Your task to perform on an android device: Show me productivity apps on the Play Store Image 0: 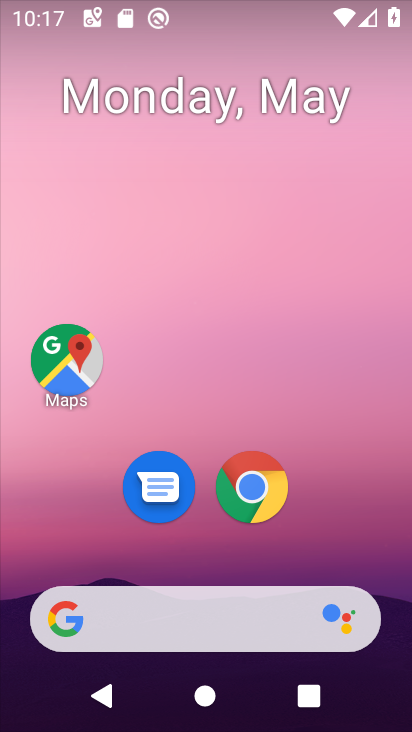
Step 0: drag from (338, 534) to (357, 36)
Your task to perform on an android device: Show me productivity apps on the Play Store Image 1: 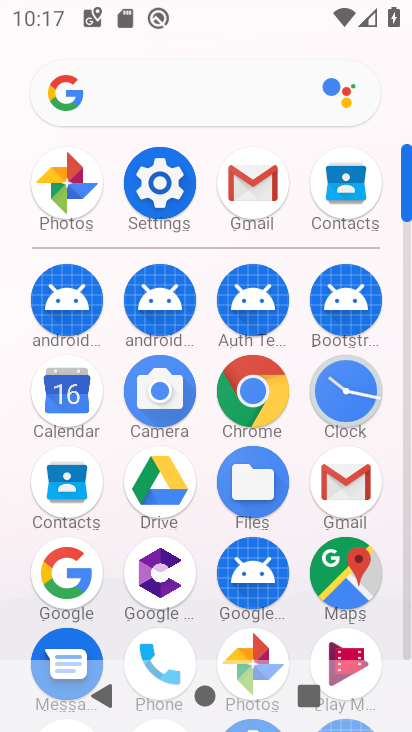
Step 1: drag from (210, 616) to (227, 299)
Your task to perform on an android device: Show me productivity apps on the Play Store Image 2: 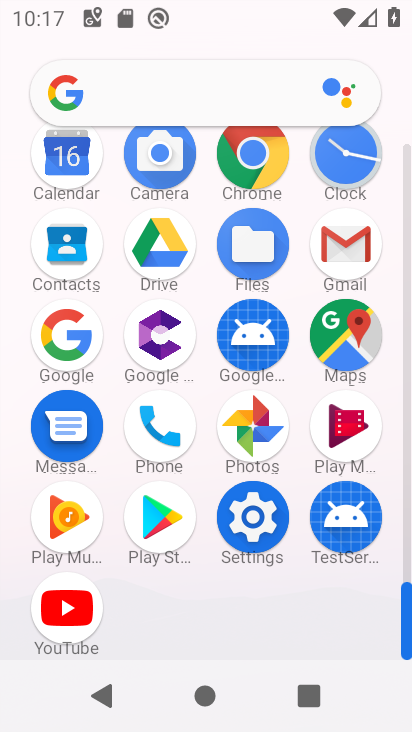
Step 2: click (148, 519)
Your task to perform on an android device: Show me productivity apps on the Play Store Image 3: 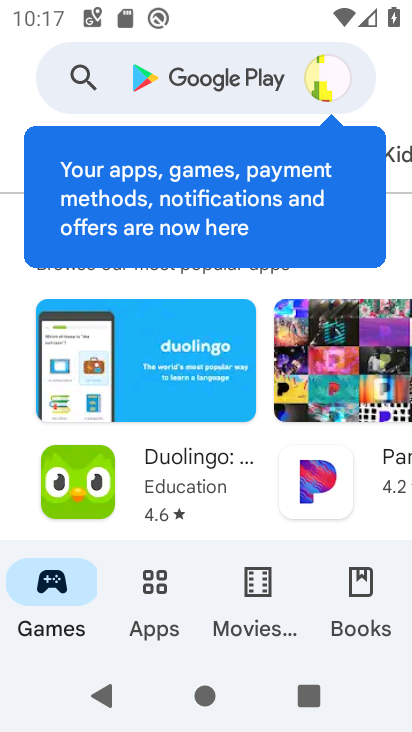
Step 3: click (155, 611)
Your task to perform on an android device: Show me productivity apps on the Play Store Image 4: 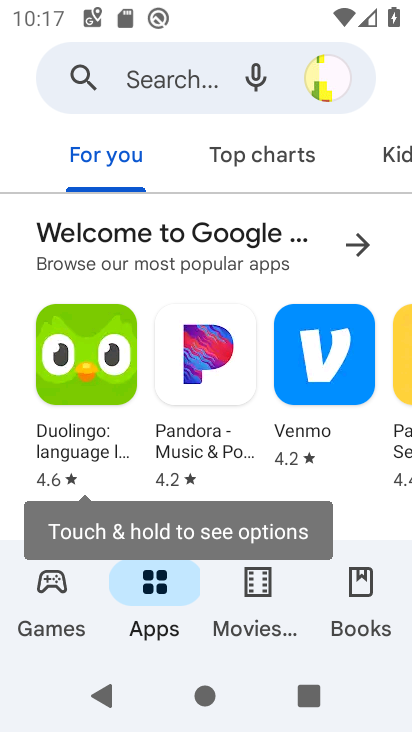
Step 4: drag from (396, 153) to (212, 97)
Your task to perform on an android device: Show me productivity apps on the Play Store Image 5: 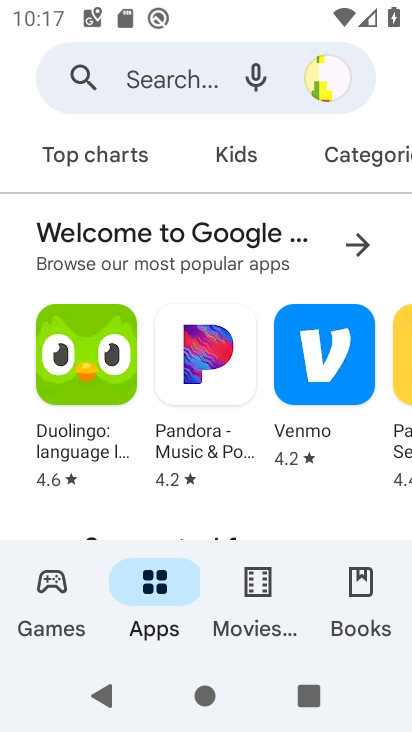
Step 5: click (392, 151)
Your task to perform on an android device: Show me productivity apps on the Play Store Image 6: 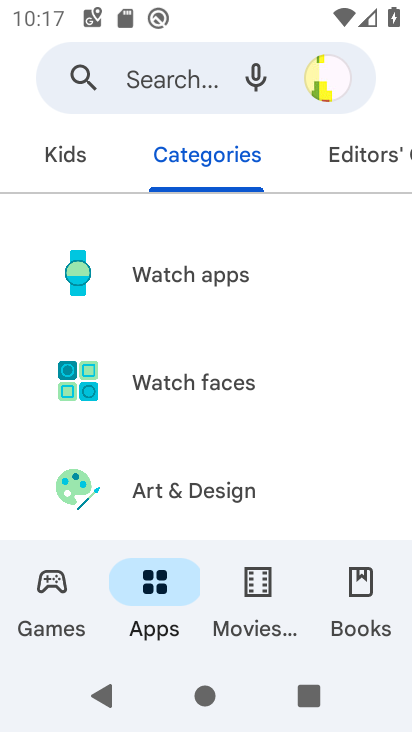
Step 6: drag from (227, 470) to (309, 227)
Your task to perform on an android device: Show me productivity apps on the Play Store Image 7: 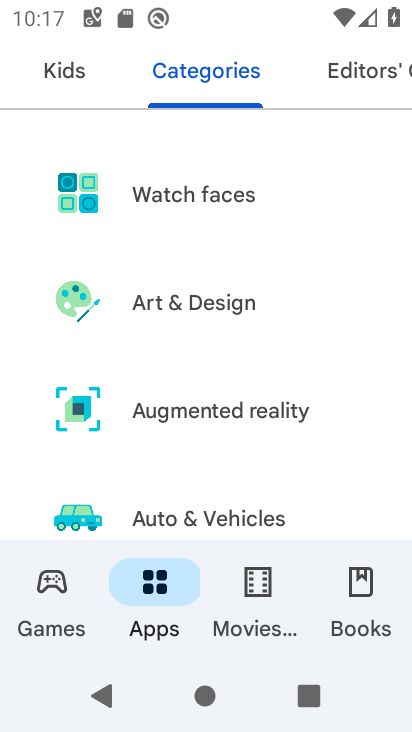
Step 7: drag from (293, 469) to (363, 234)
Your task to perform on an android device: Show me productivity apps on the Play Store Image 8: 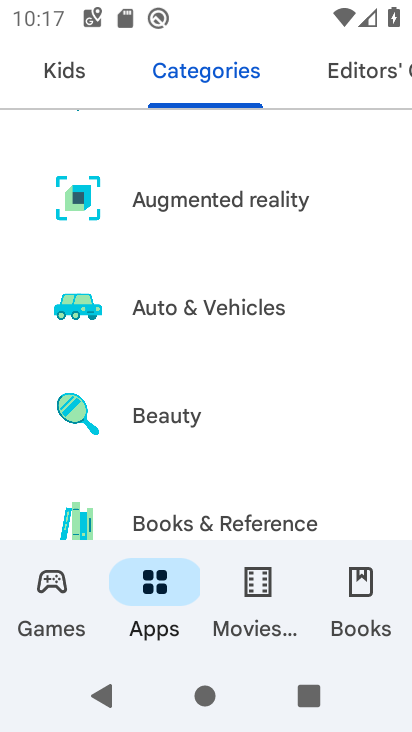
Step 8: drag from (337, 486) to (374, 295)
Your task to perform on an android device: Show me productivity apps on the Play Store Image 9: 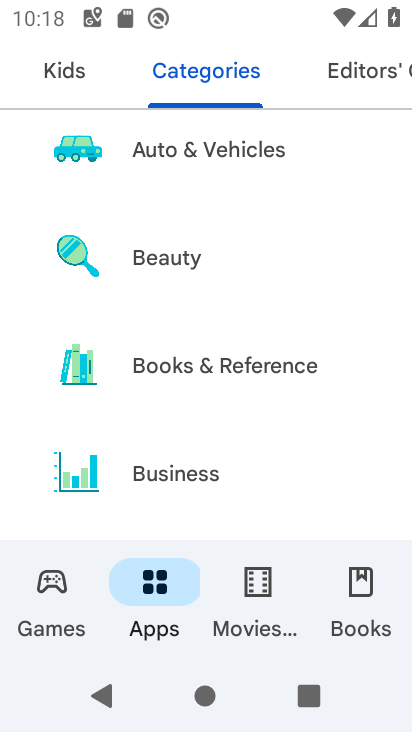
Step 9: drag from (330, 456) to (333, 232)
Your task to perform on an android device: Show me productivity apps on the Play Store Image 10: 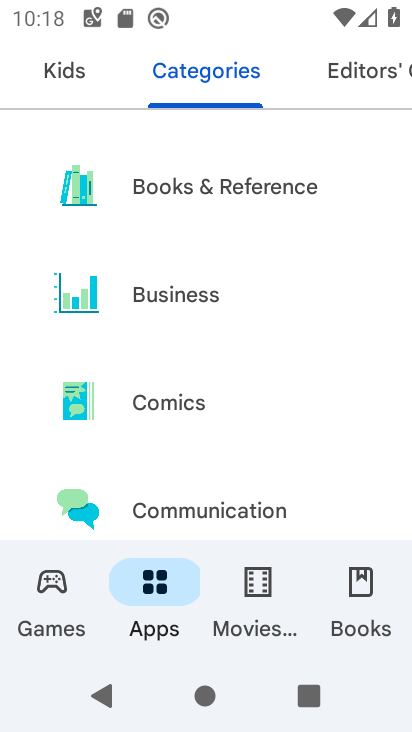
Step 10: drag from (312, 517) to (337, 303)
Your task to perform on an android device: Show me productivity apps on the Play Store Image 11: 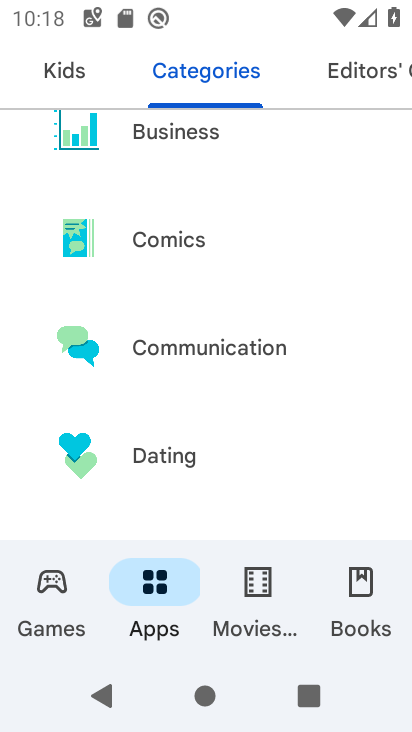
Step 11: drag from (319, 514) to (350, 330)
Your task to perform on an android device: Show me productivity apps on the Play Store Image 12: 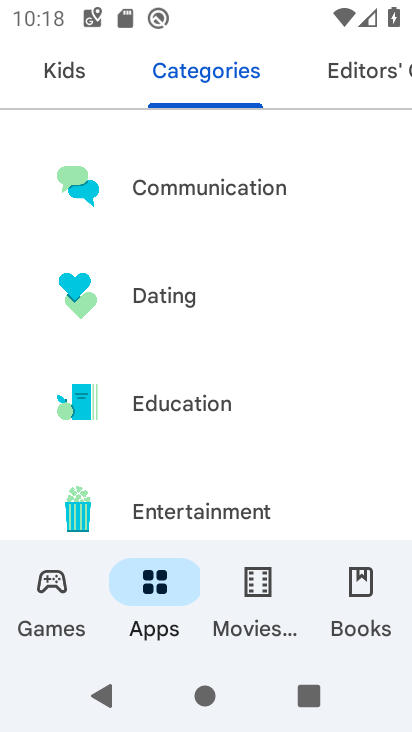
Step 12: drag from (322, 501) to (334, 256)
Your task to perform on an android device: Show me productivity apps on the Play Store Image 13: 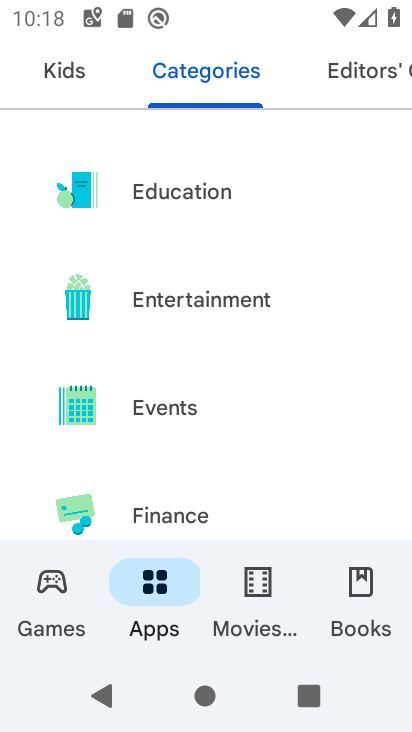
Step 13: drag from (328, 459) to (365, 315)
Your task to perform on an android device: Show me productivity apps on the Play Store Image 14: 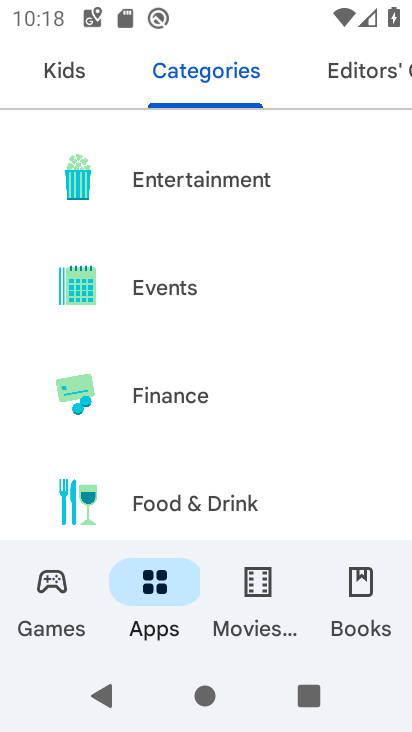
Step 14: drag from (345, 469) to (394, 227)
Your task to perform on an android device: Show me productivity apps on the Play Store Image 15: 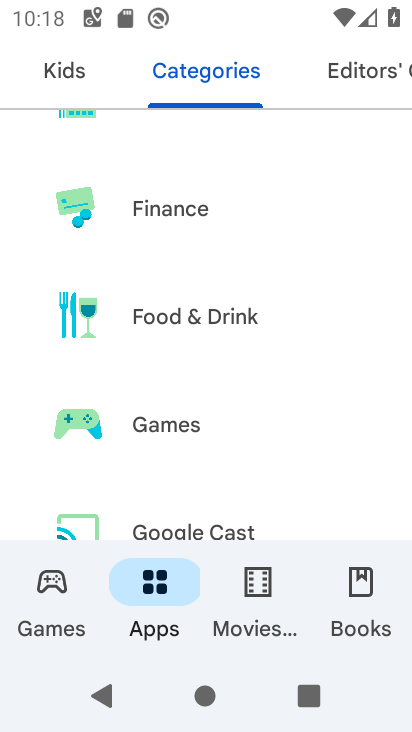
Step 15: drag from (303, 507) to (328, 239)
Your task to perform on an android device: Show me productivity apps on the Play Store Image 16: 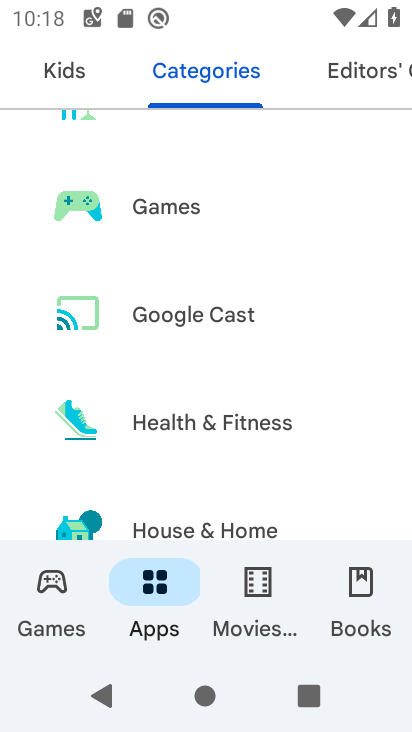
Step 16: drag from (267, 465) to (306, 249)
Your task to perform on an android device: Show me productivity apps on the Play Store Image 17: 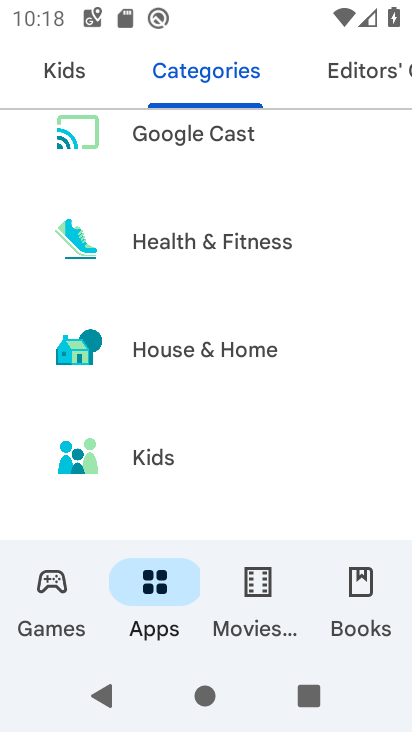
Step 17: drag from (260, 465) to (268, 235)
Your task to perform on an android device: Show me productivity apps on the Play Store Image 18: 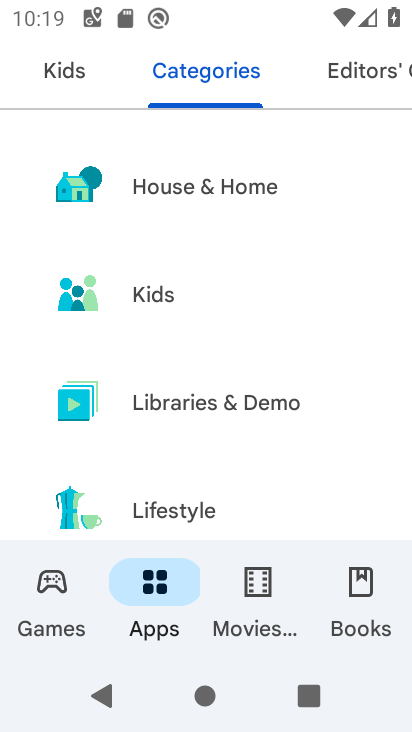
Step 18: drag from (269, 459) to (312, 227)
Your task to perform on an android device: Show me productivity apps on the Play Store Image 19: 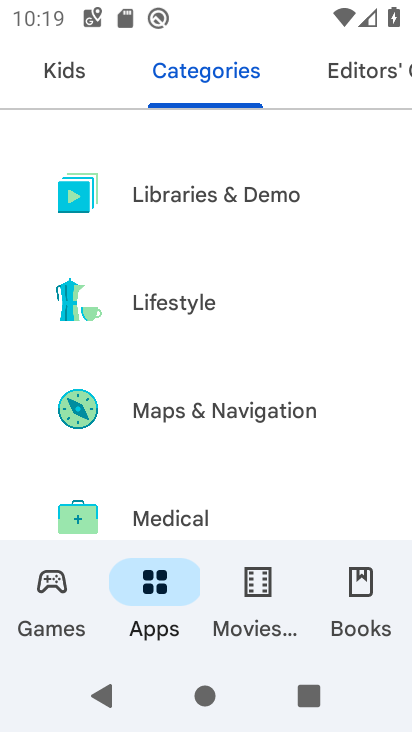
Step 19: drag from (265, 487) to (313, 225)
Your task to perform on an android device: Show me productivity apps on the Play Store Image 20: 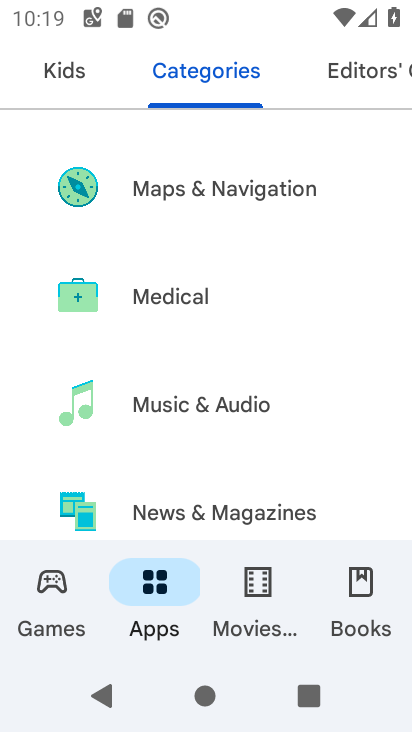
Step 20: drag from (277, 463) to (288, 192)
Your task to perform on an android device: Show me productivity apps on the Play Store Image 21: 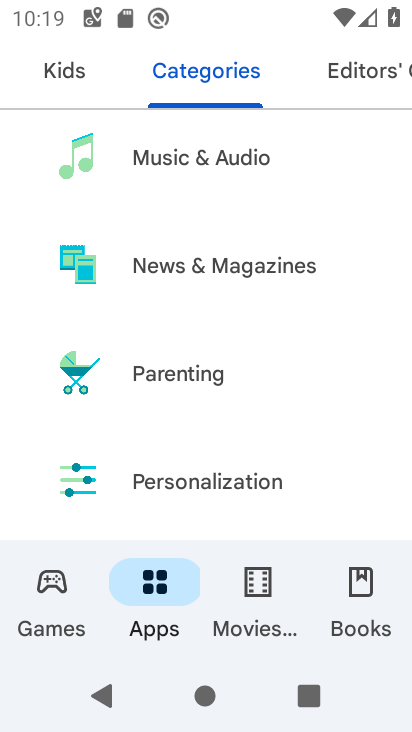
Step 21: drag from (244, 478) to (258, 121)
Your task to perform on an android device: Show me productivity apps on the Play Store Image 22: 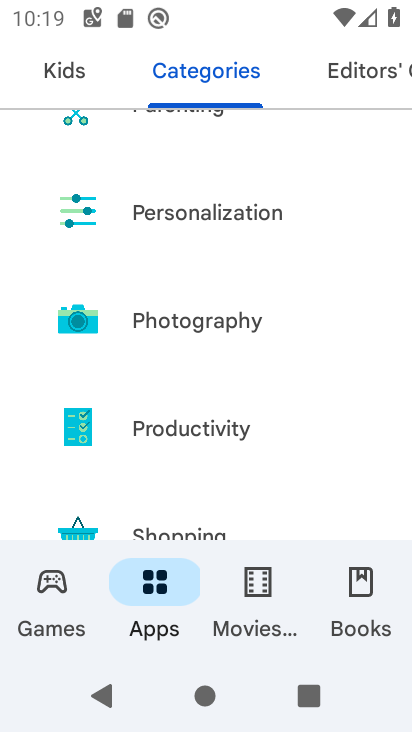
Step 22: click (191, 419)
Your task to perform on an android device: Show me productivity apps on the Play Store Image 23: 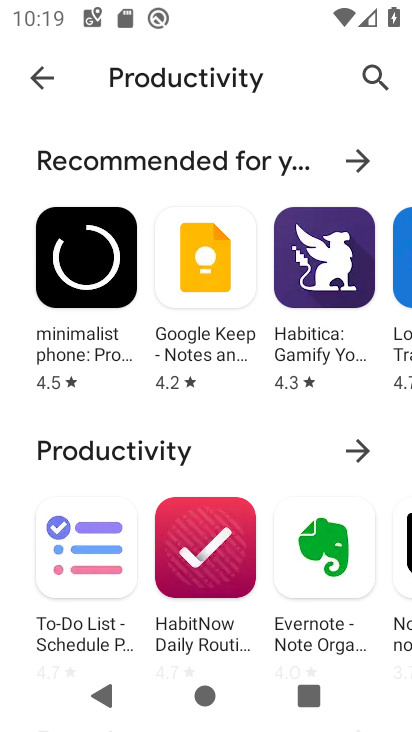
Step 23: task complete